Your task to perform on an android device: Open Google Maps and go to "Timeline" Image 0: 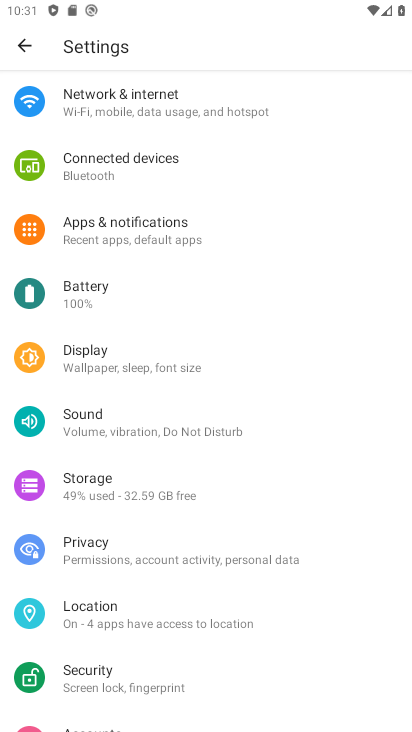
Step 0: press home button
Your task to perform on an android device: Open Google Maps and go to "Timeline" Image 1: 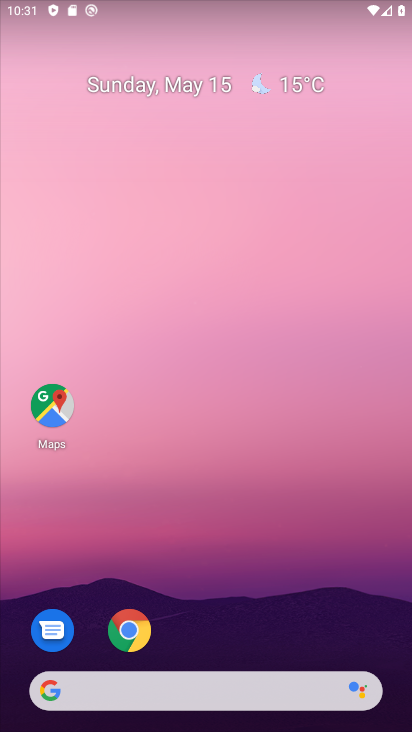
Step 1: drag from (198, 722) to (183, 160)
Your task to perform on an android device: Open Google Maps and go to "Timeline" Image 2: 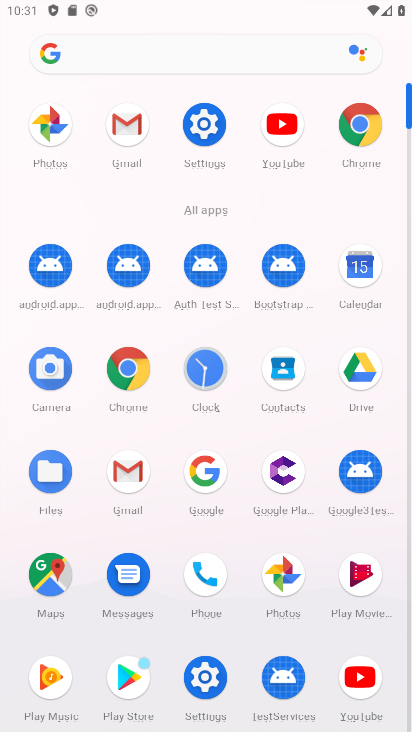
Step 2: click (52, 573)
Your task to perform on an android device: Open Google Maps and go to "Timeline" Image 3: 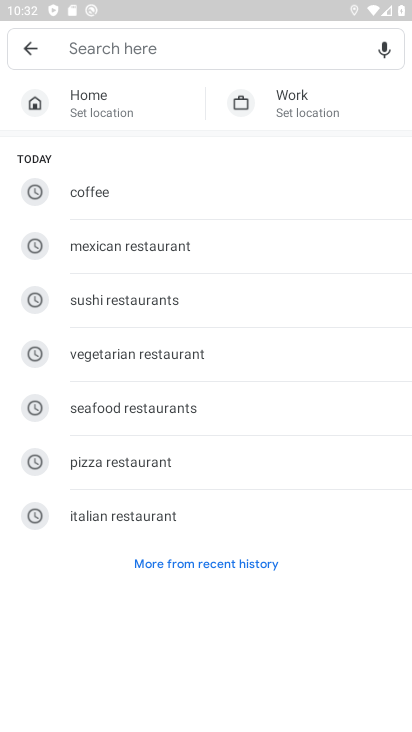
Step 3: click (26, 51)
Your task to perform on an android device: Open Google Maps and go to "Timeline" Image 4: 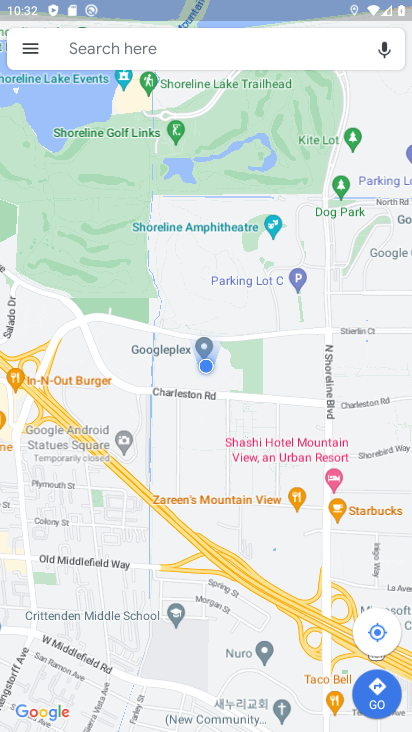
Step 4: click (28, 57)
Your task to perform on an android device: Open Google Maps and go to "Timeline" Image 5: 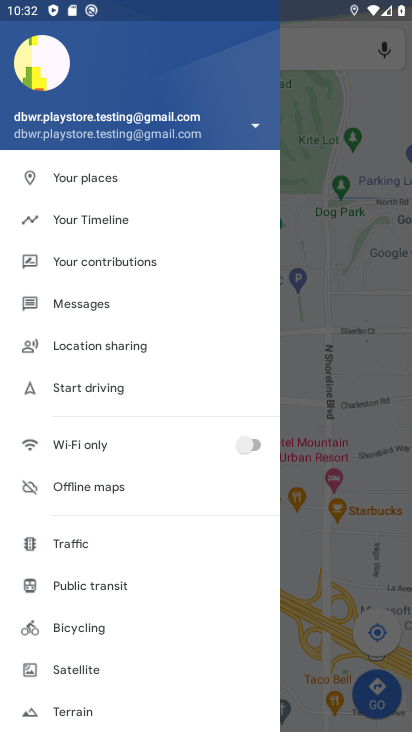
Step 5: click (93, 220)
Your task to perform on an android device: Open Google Maps and go to "Timeline" Image 6: 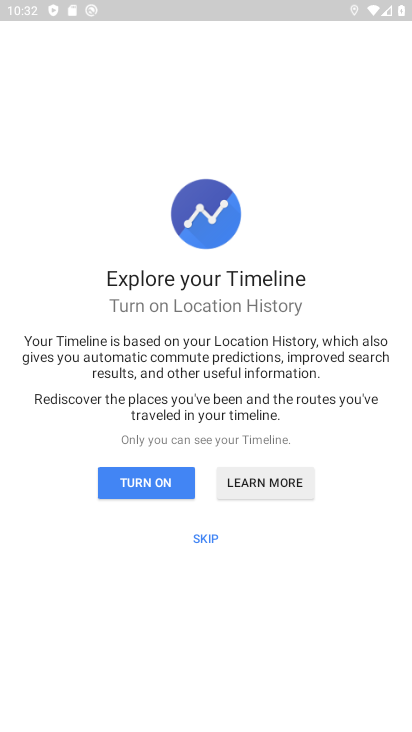
Step 6: click (205, 535)
Your task to perform on an android device: Open Google Maps and go to "Timeline" Image 7: 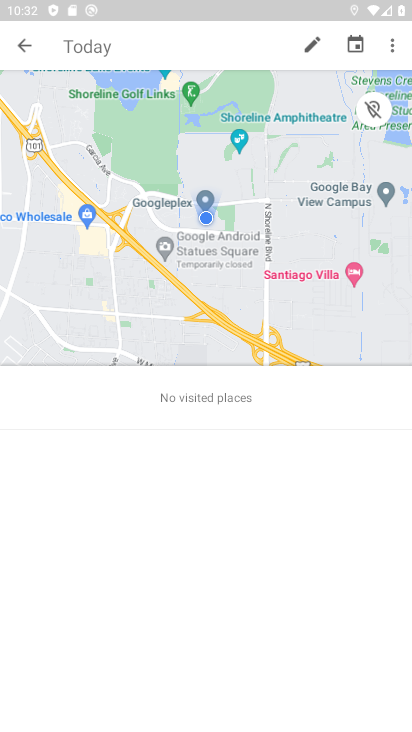
Step 7: task complete